Your task to perform on an android device: make emails show in primary in the gmail app Image 0: 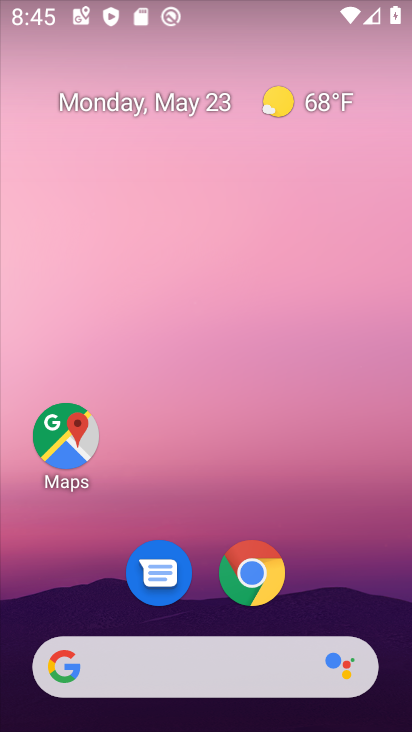
Step 0: drag from (289, 722) to (306, 567)
Your task to perform on an android device: make emails show in primary in the gmail app Image 1: 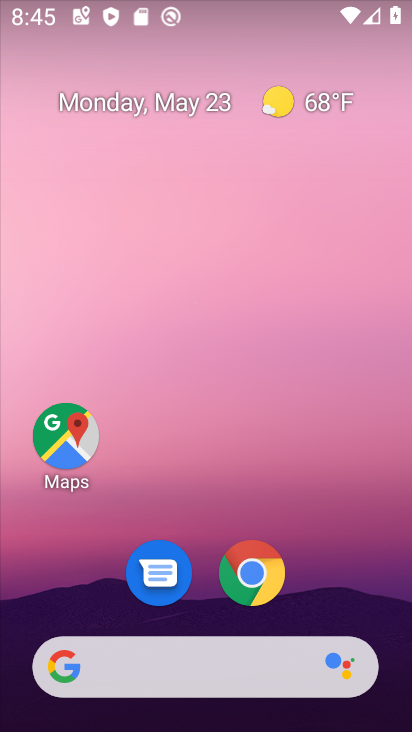
Step 1: click (300, 421)
Your task to perform on an android device: make emails show in primary in the gmail app Image 2: 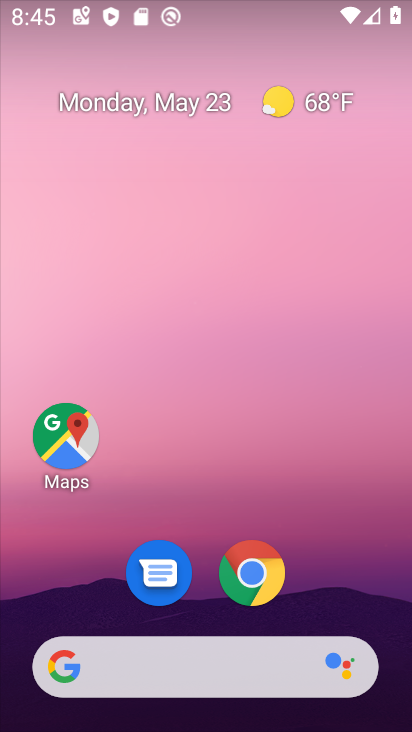
Step 2: drag from (333, 635) to (384, 441)
Your task to perform on an android device: make emails show in primary in the gmail app Image 3: 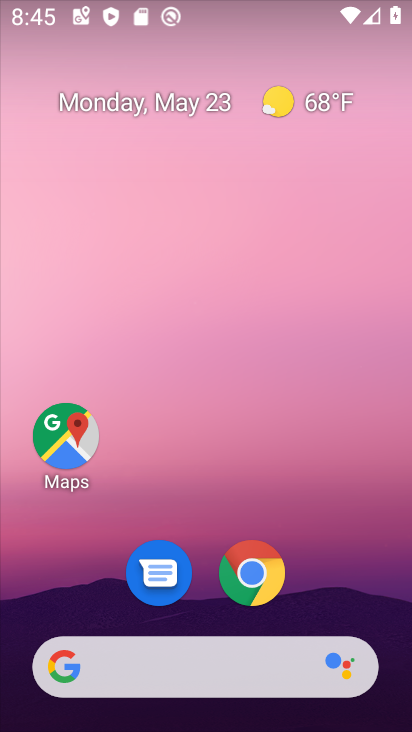
Step 3: drag from (270, 625) to (288, 5)
Your task to perform on an android device: make emails show in primary in the gmail app Image 4: 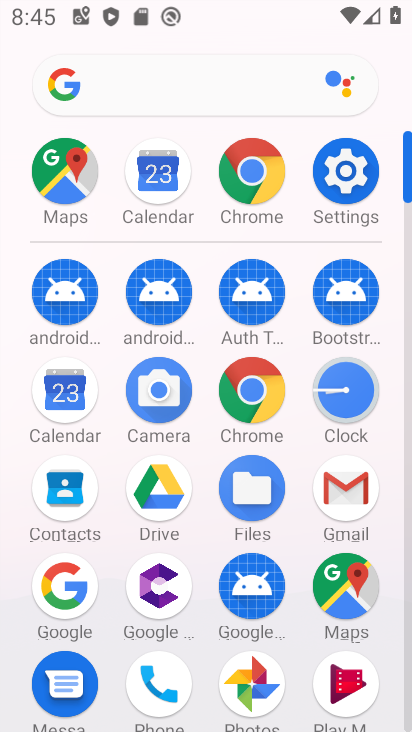
Step 4: click (342, 503)
Your task to perform on an android device: make emails show in primary in the gmail app Image 5: 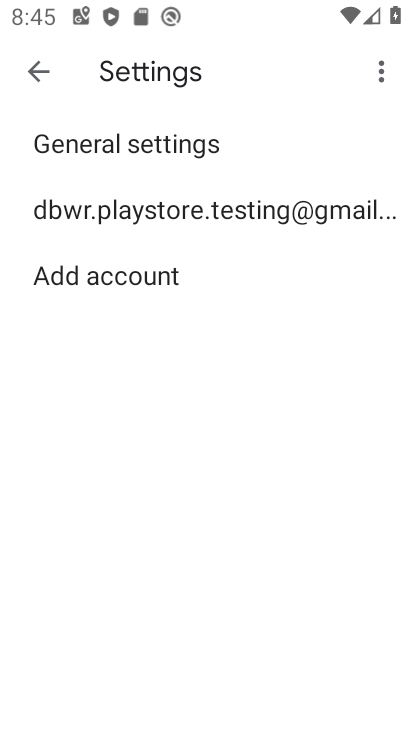
Step 5: click (144, 145)
Your task to perform on an android device: make emails show in primary in the gmail app Image 6: 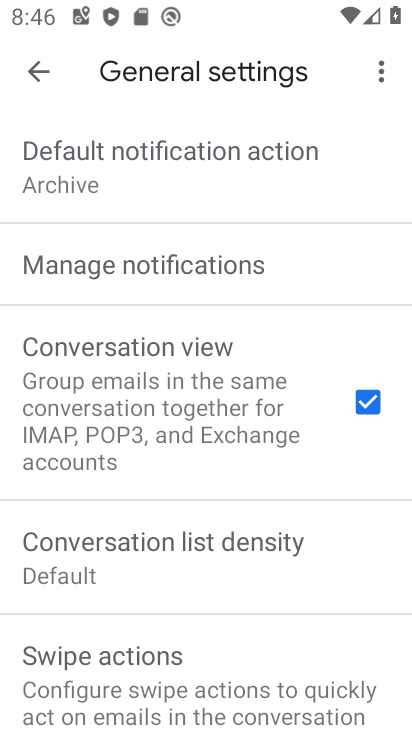
Step 6: task complete